Your task to perform on an android device: toggle wifi Image 0: 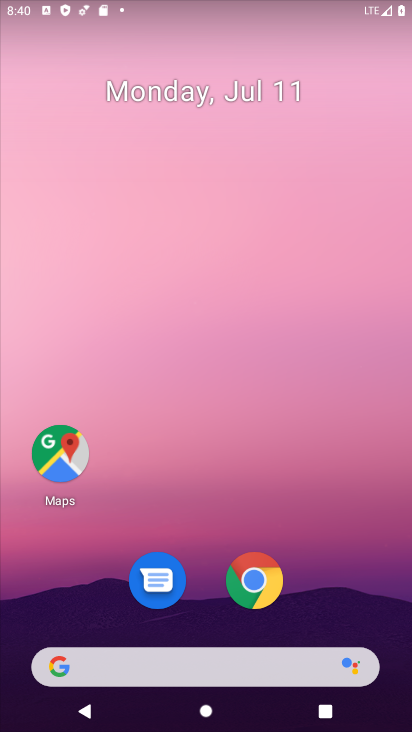
Step 0: drag from (297, 520) to (293, 0)
Your task to perform on an android device: toggle wifi Image 1: 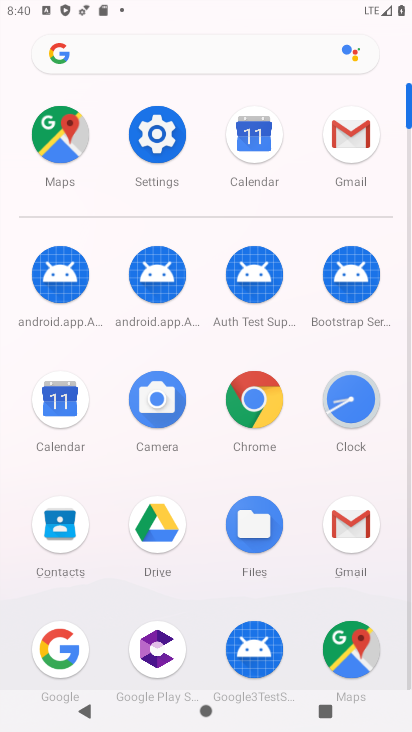
Step 1: click (168, 139)
Your task to perform on an android device: toggle wifi Image 2: 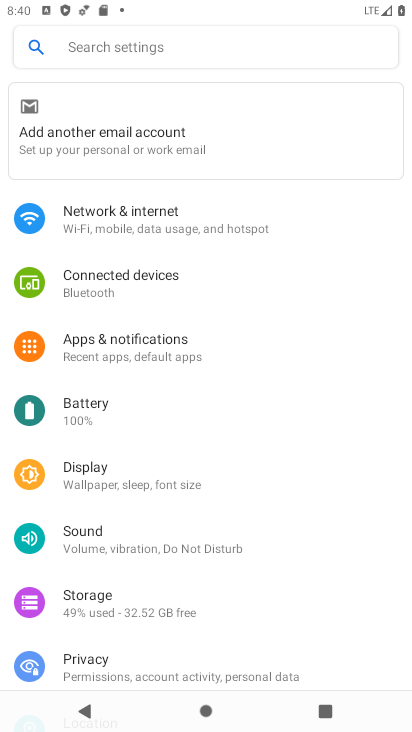
Step 2: click (210, 216)
Your task to perform on an android device: toggle wifi Image 3: 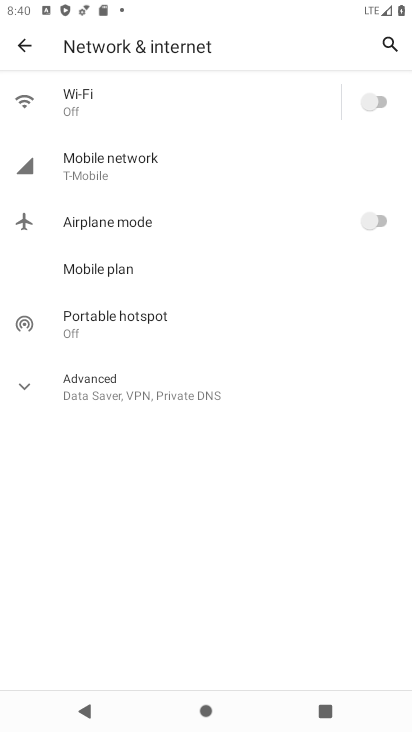
Step 3: click (368, 96)
Your task to perform on an android device: toggle wifi Image 4: 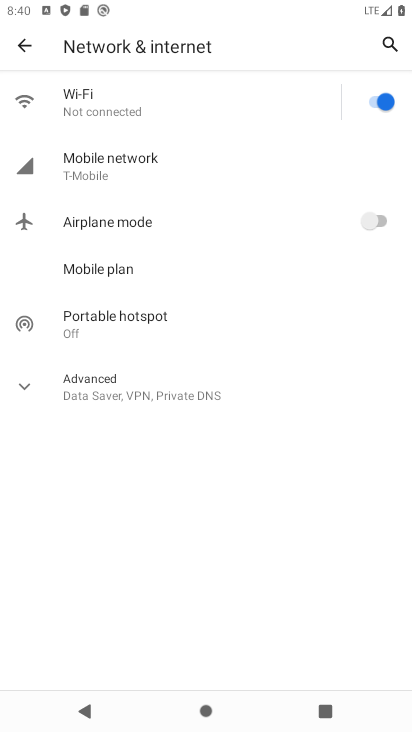
Step 4: task complete